Your task to perform on an android device: refresh tabs in the chrome app Image 0: 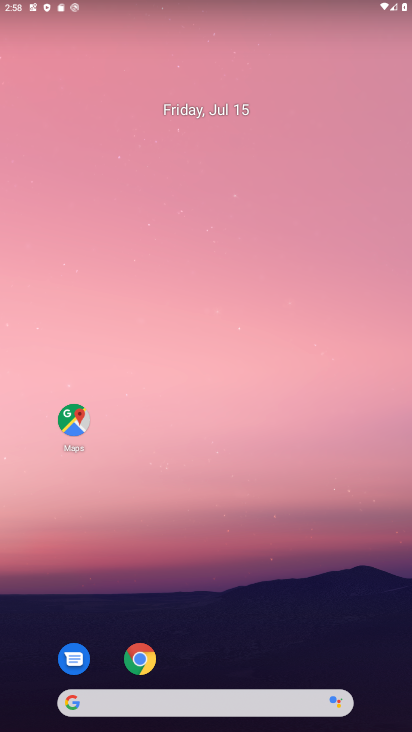
Step 0: click (130, 665)
Your task to perform on an android device: refresh tabs in the chrome app Image 1: 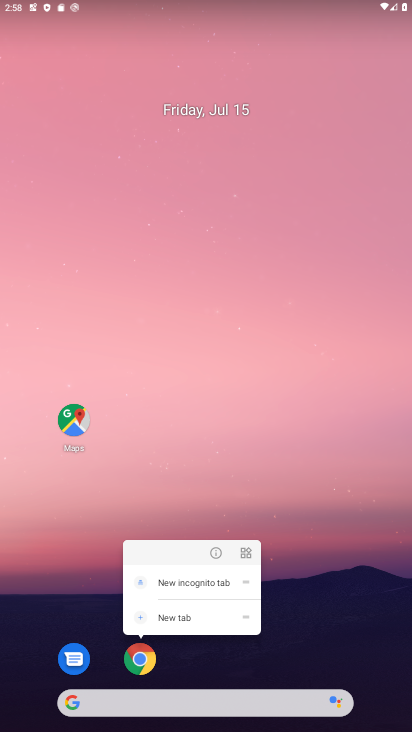
Step 1: click (129, 666)
Your task to perform on an android device: refresh tabs in the chrome app Image 2: 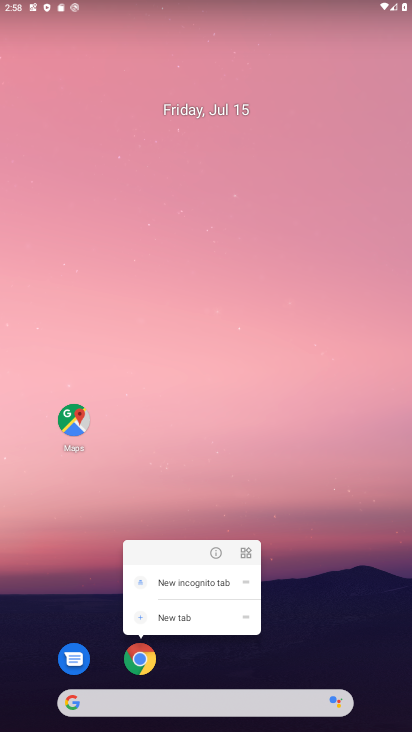
Step 2: click (131, 664)
Your task to perform on an android device: refresh tabs in the chrome app Image 3: 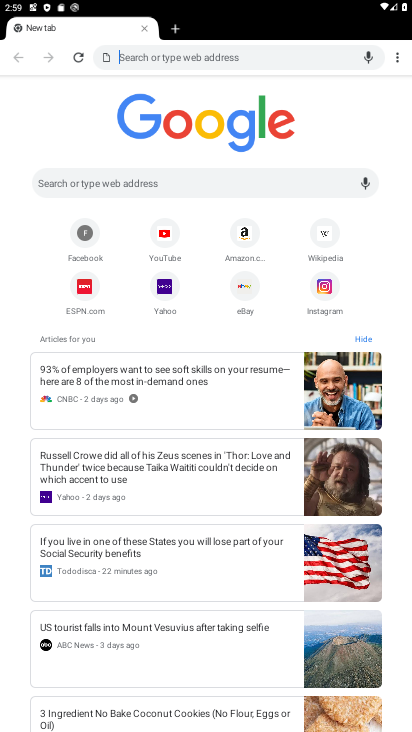
Step 3: click (397, 57)
Your task to perform on an android device: refresh tabs in the chrome app Image 4: 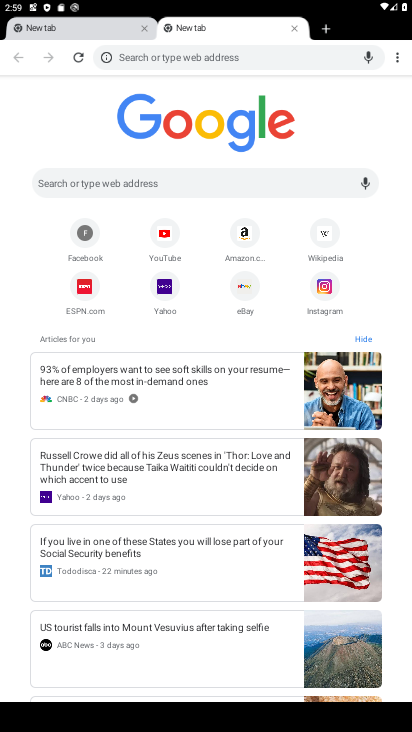
Step 4: click (74, 53)
Your task to perform on an android device: refresh tabs in the chrome app Image 5: 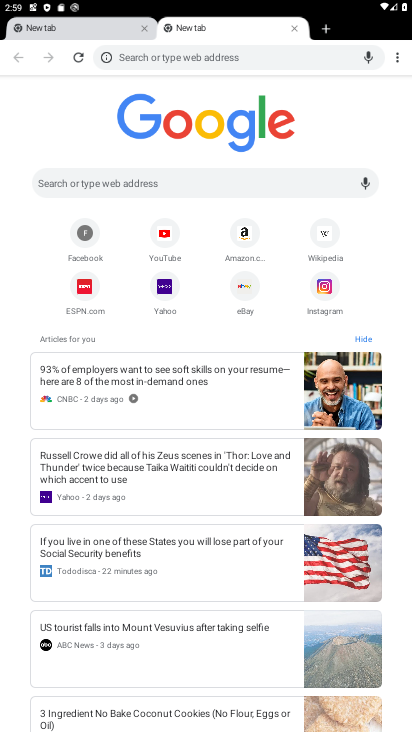
Step 5: task complete